Your task to perform on an android device: Open the Play Movies app and select the watchlist tab. Image 0: 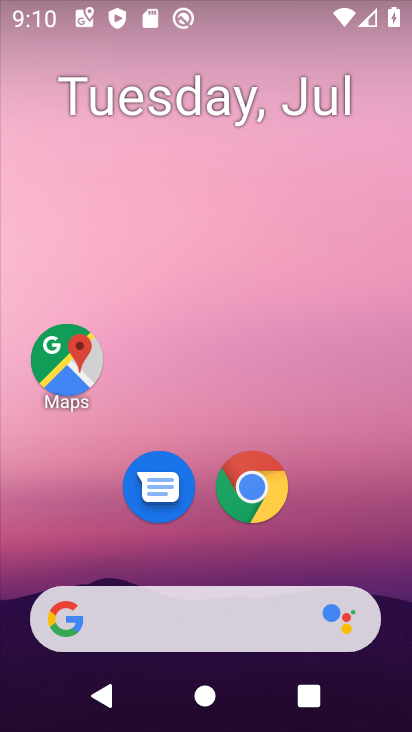
Step 0: drag from (164, 433) to (308, 6)
Your task to perform on an android device: Open the Play Movies app and select the watchlist tab. Image 1: 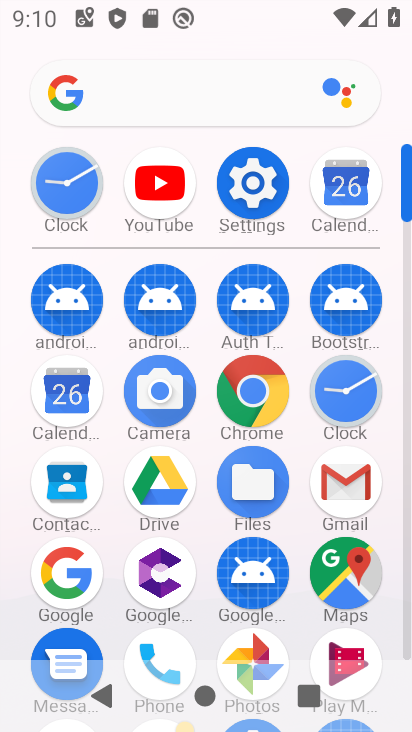
Step 1: click (342, 652)
Your task to perform on an android device: Open the Play Movies app and select the watchlist tab. Image 2: 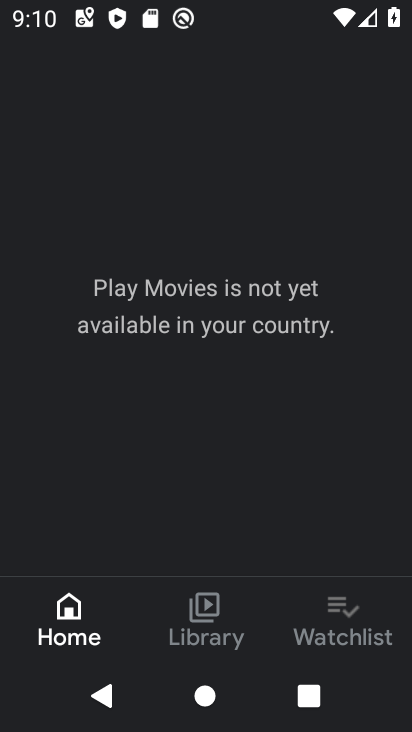
Step 2: click (357, 618)
Your task to perform on an android device: Open the Play Movies app and select the watchlist tab. Image 3: 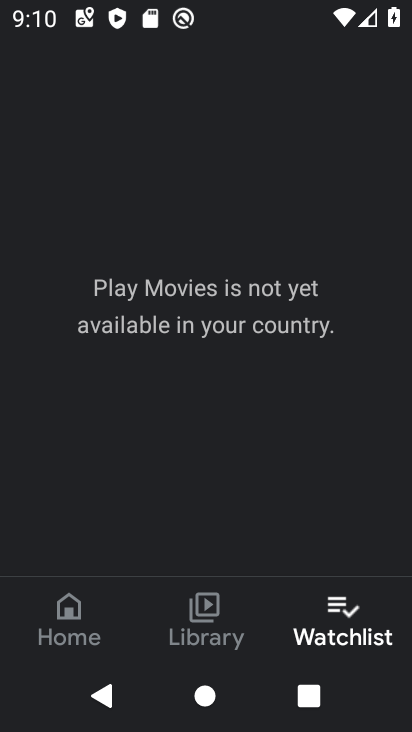
Step 3: task complete